Your task to perform on an android device: turn on priority inbox in the gmail app Image 0: 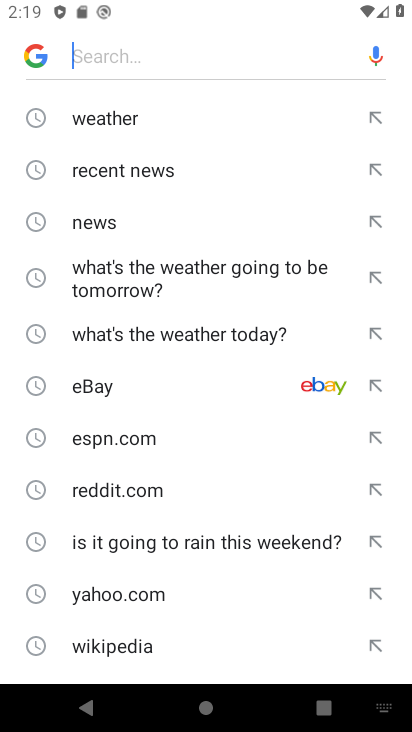
Step 0: press home button
Your task to perform on an android device: turn on priority inbox in the gmail app Image 1: 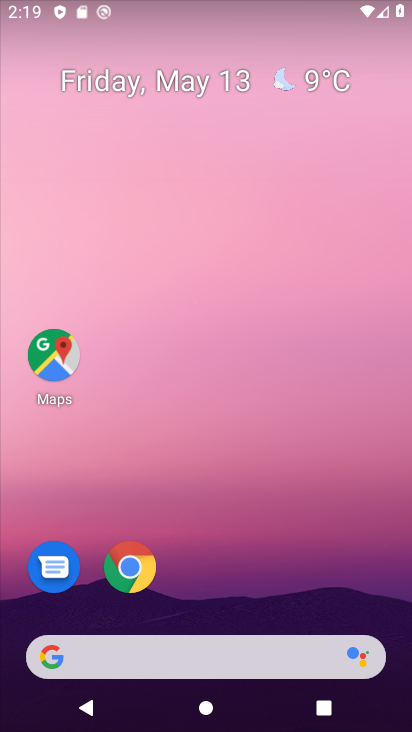
Step 1: drag from (319, 579) to (375, 4)
Your task to perform on an android device: turn on priority inbox in the gmail app Image 2: 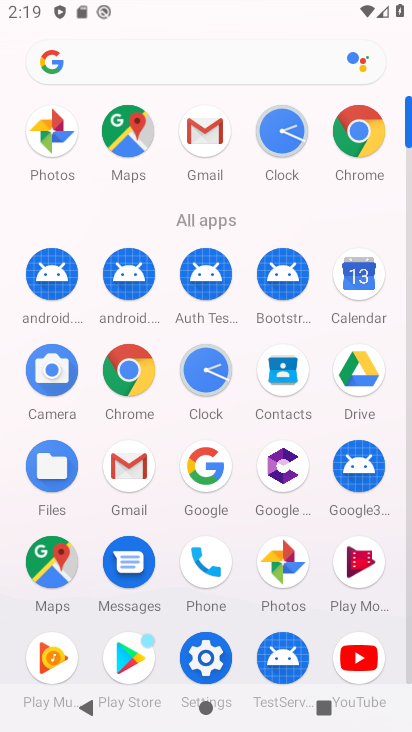
Step 2: click (193, 138)
Your task to perform on an android device: turn on priority inbox in the gmail app Image 3: 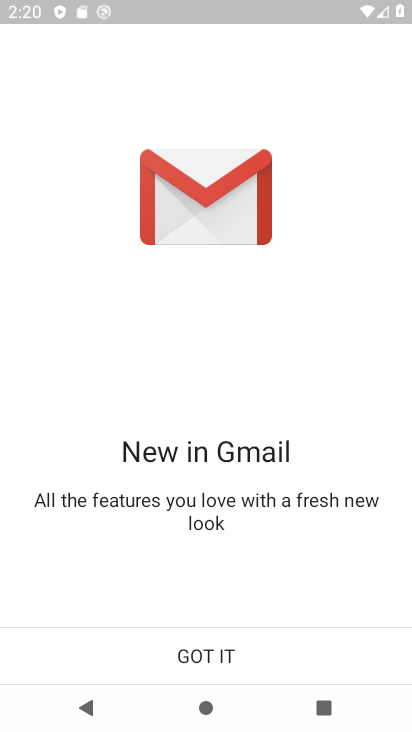
Step 3: click (217, 649)
Your task to perform on an android device: turn on priority inbox in the gmail app Image 4: 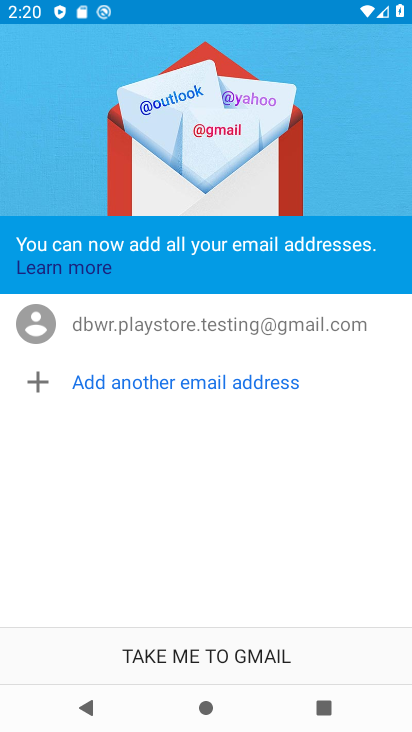
Step 4: click (217, 649)
Your task to perform on an android device: turn on priority inbox in the gmail app Image 5: 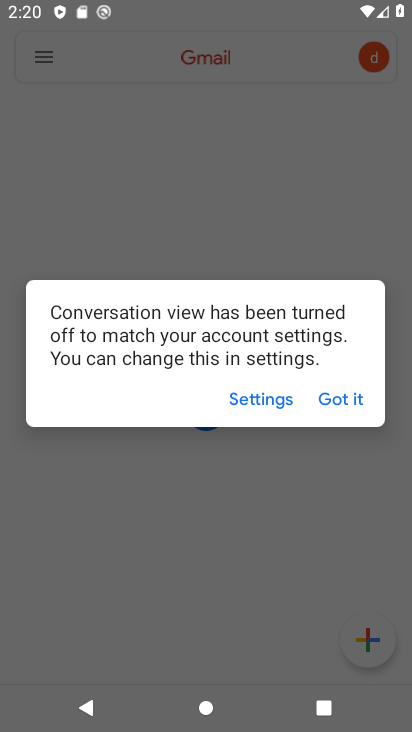
Step 5: click (327, 393)
Your task to perform on an android device: turn on priority inbox in the gmail app Image 6: 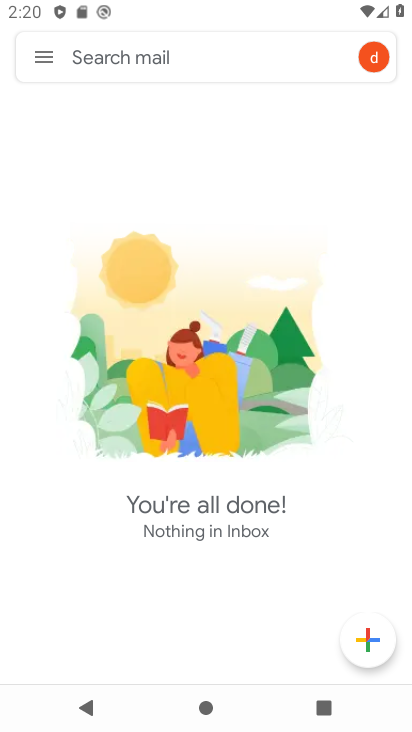
Step 6: click (48, 58)
Your task to perform on an android device: turn on priority inbox in the gmail app Image 7: 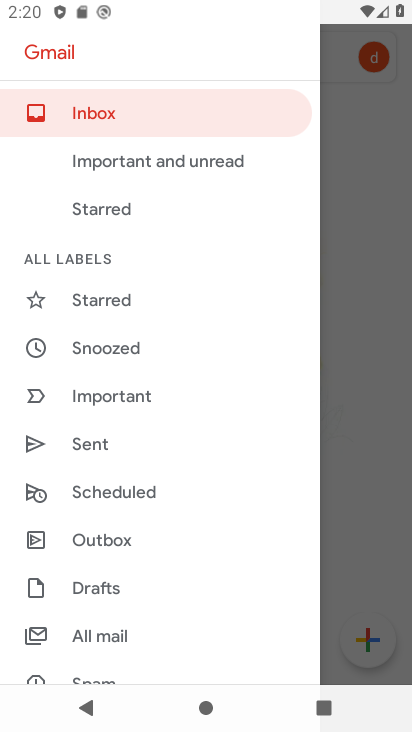
Step 7: drag from (191, 598) to (214, 221)
Your task to perform on an android device: turn on priority inbox in the gmail app Image 8: 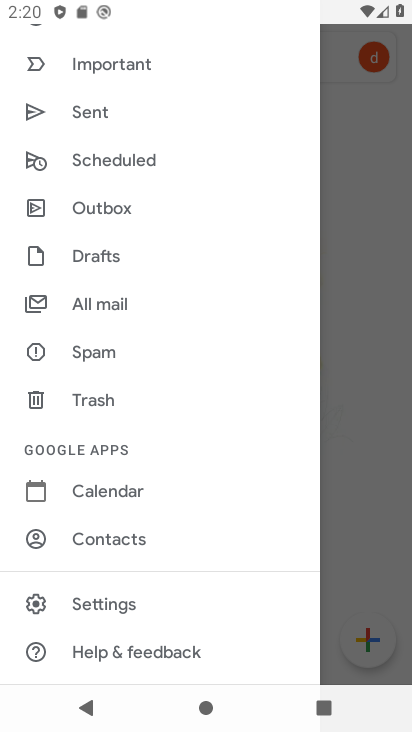
Step 8: click (128, 602)
Your task to perform on an android device: turn on priority inbox in the gmail app Image 9: 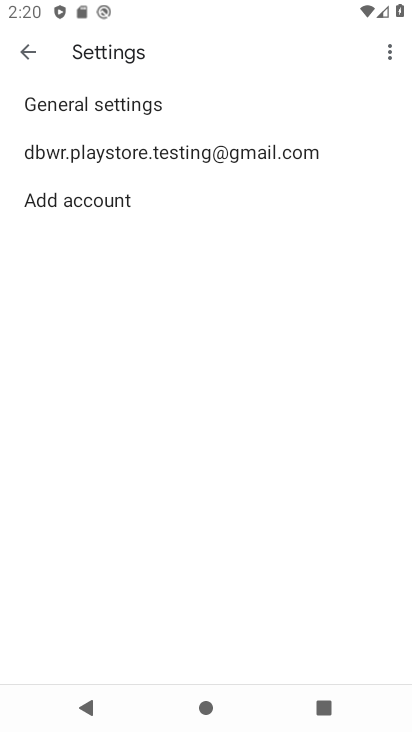
Step 9: click (159, 158)
Your task to perform on an android device: turn on priority inbox in the gmail app Image 10: 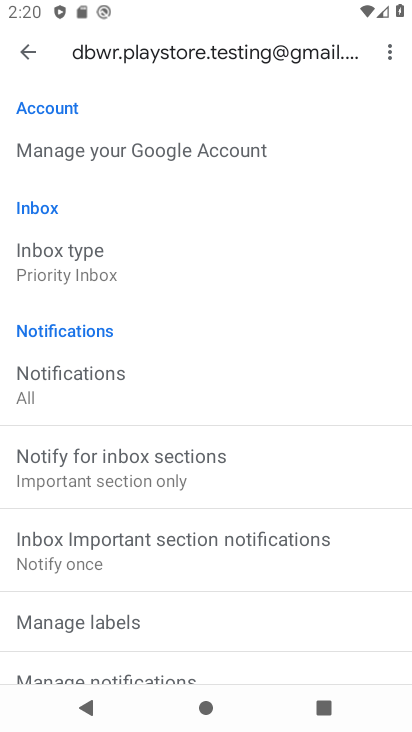
Step 10: click (72, 268)
Your task to perform on an android device: turn on priority inbox in the gmail app Image 11: 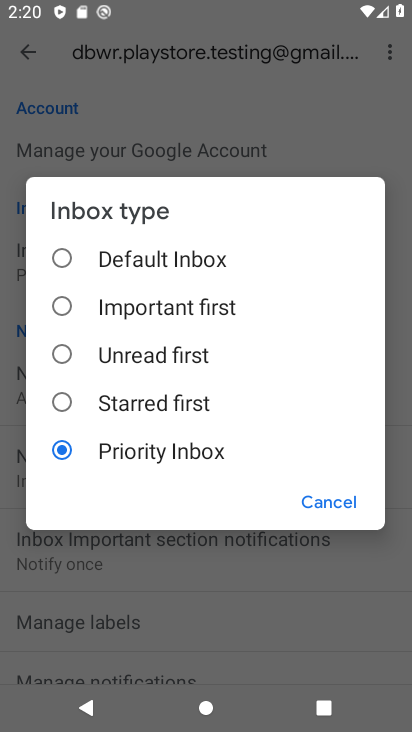
Step 11: task complete